Your task to perform on an android device: turn notification dots off Image 0: 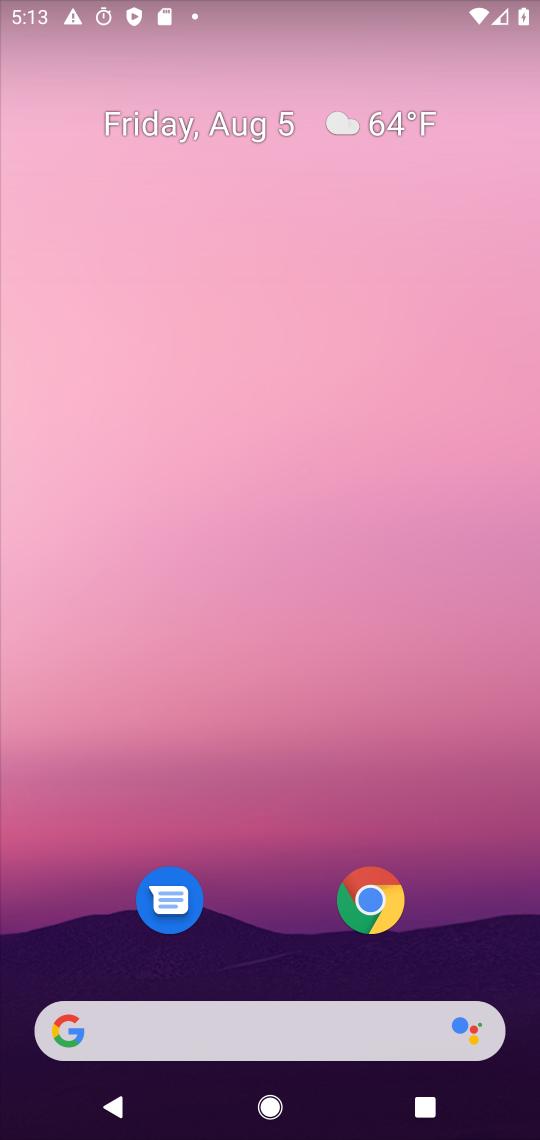
Step 0: drag from (278, 902) to (233, 181)
Your task to perform on an android device: turn notification dots off Image 1: 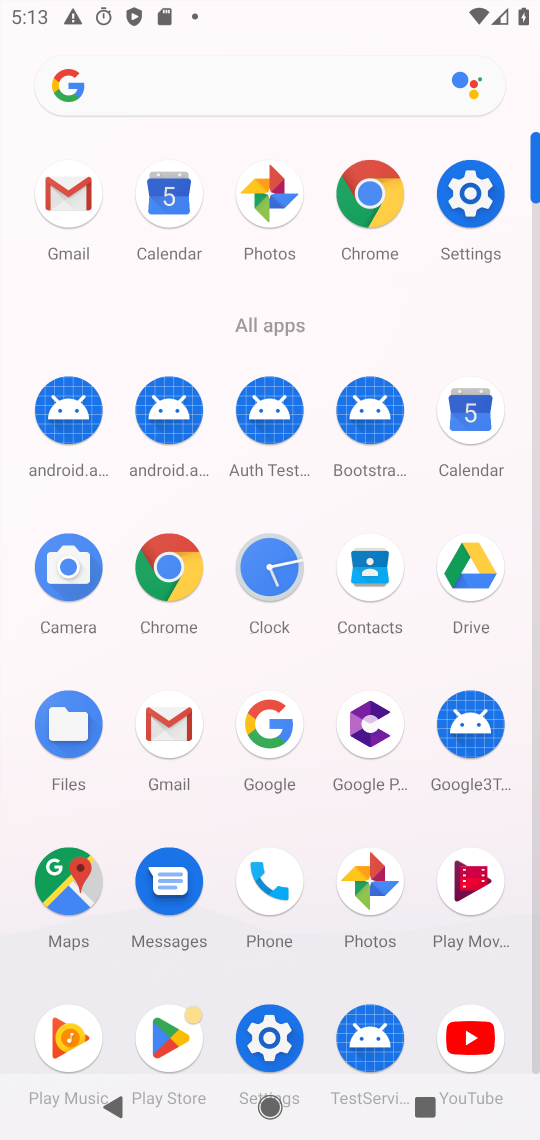
Step 1: click (268, 1020)
Your task to perform on an android device: turn notification dots off Image 2: 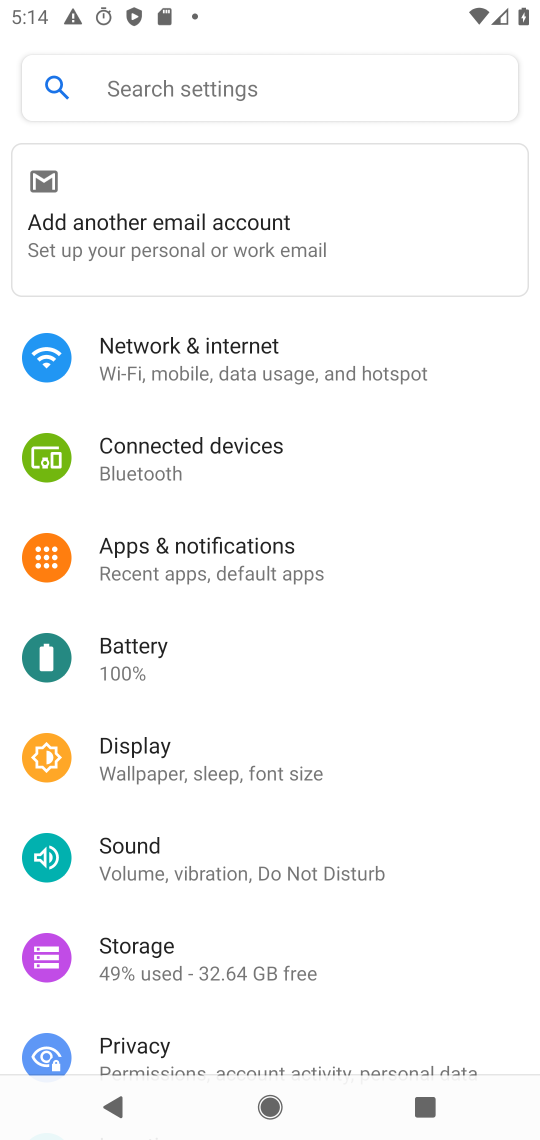
Step 2: click (204, 581)
Your task to perform on an android device: turn notification dots off Image 3: 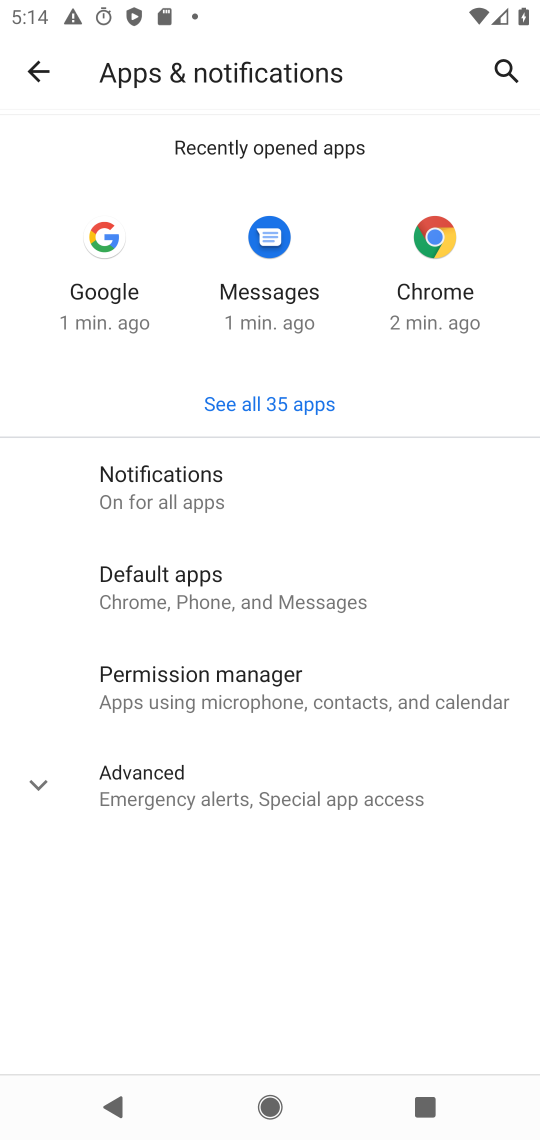
Step 3: click (199, 492)
Your task to perform on an android device: turn notification dots off Image 4: 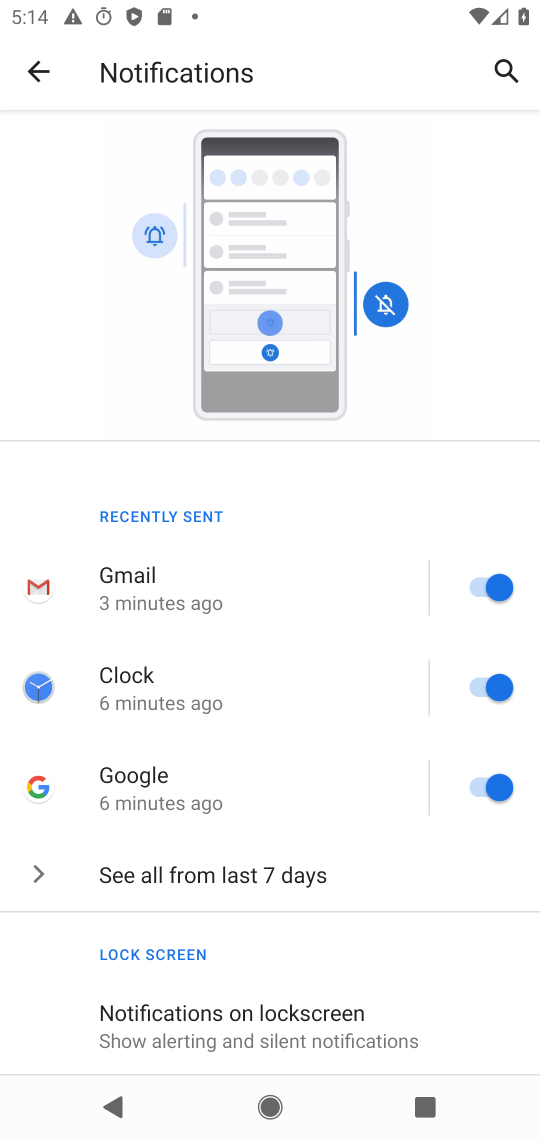
Step 4: drag from (345, 969) to (400, 265)
Your task to perform on an android device: turn notification dots off Image 5: 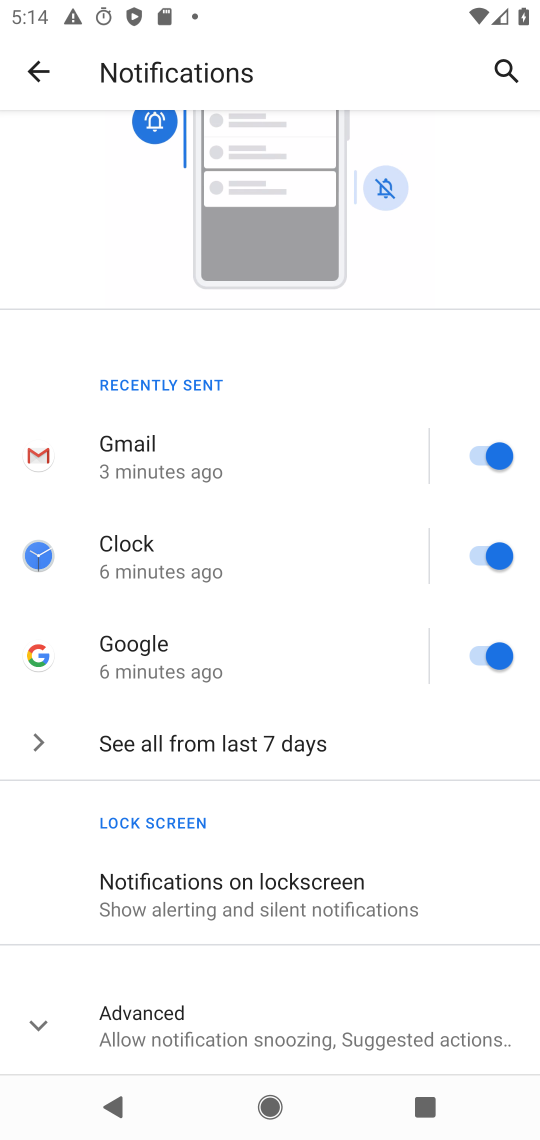
Step 5: click (193, 1014)
Your task to perform on an android device: turn notification dots off Image 6: 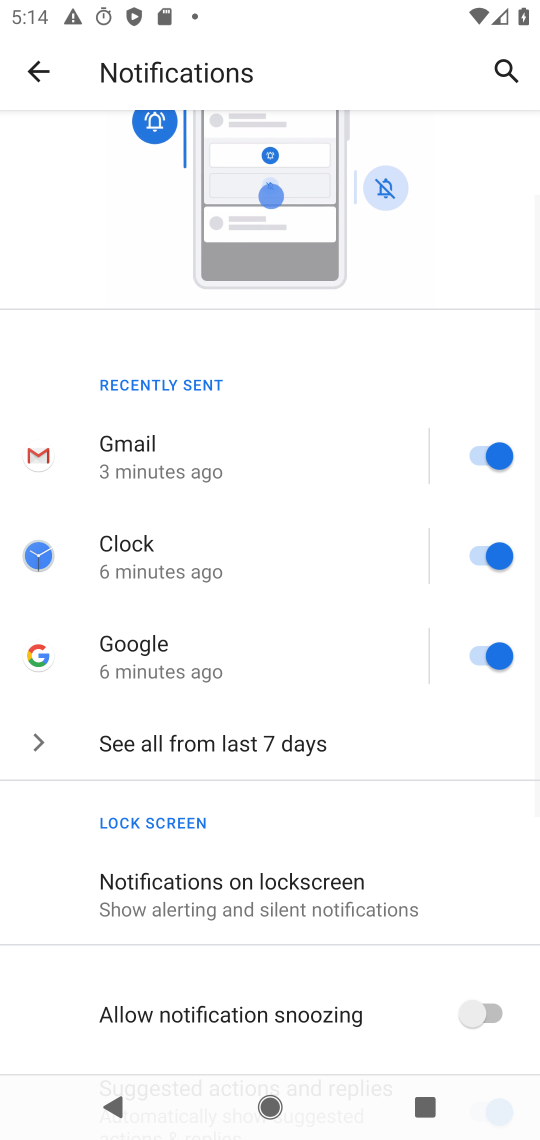
Step 6: drag from (358, 996) to (400, 380)
Your task to perform on an android device: turn notification dots off Image 7: 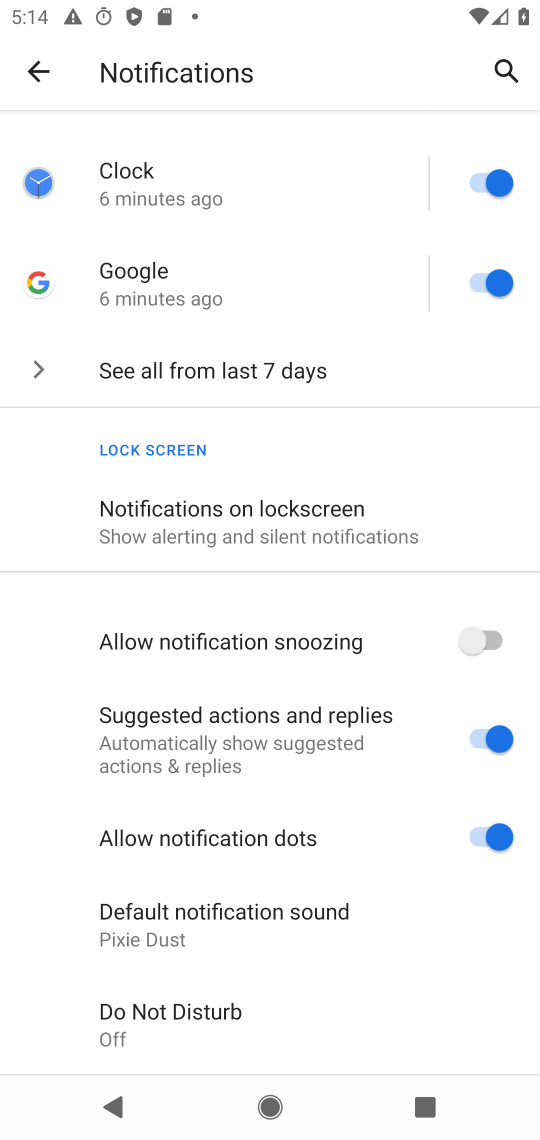
Step 7: click (483, 831)
Your task to perform on an android device: turn notification dots off Image 8: 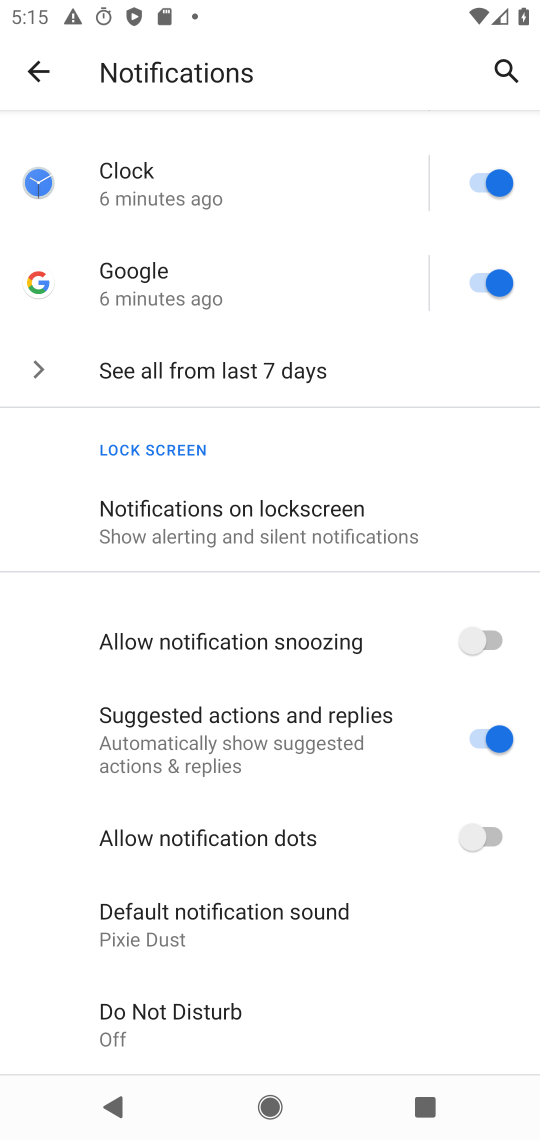
Step 8: task complete